Your task to perform on an android device: Open Reddit.com Image 0: 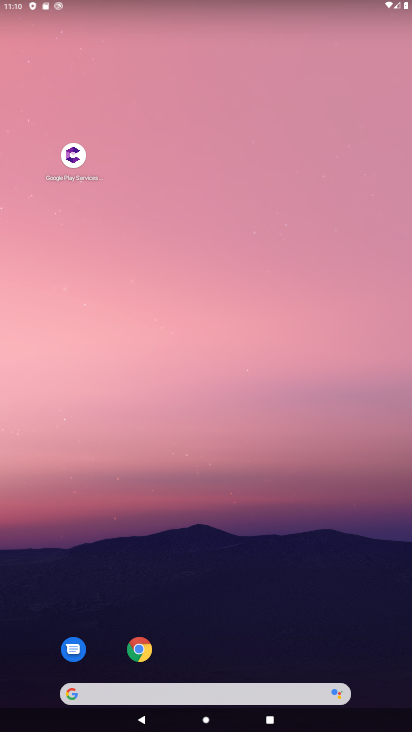
Step 0: click (317, 62)
Your task to perform on an android device: Open Reddit.com Image 1: 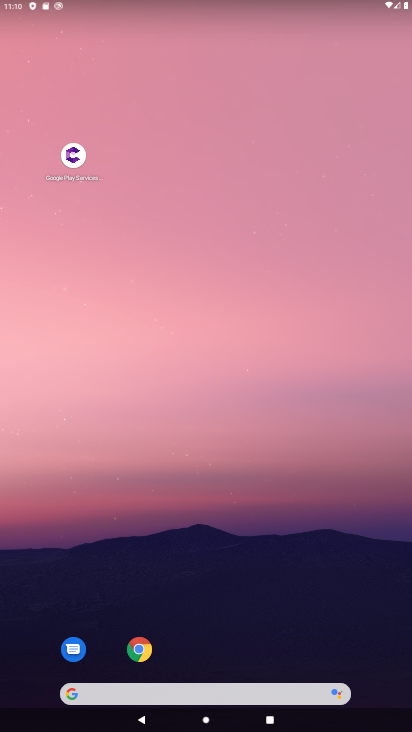
Step 1: drag from (299, 562) to (410, 187)
Your task to perform on an android device: Open Reddit.com Image 2: 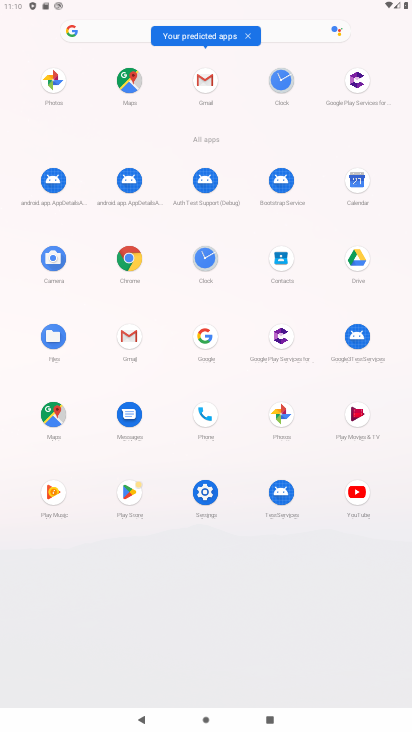
Step 2: click (131, 252)
Your task to perform on an android device: Open Reddit.com Image 3: 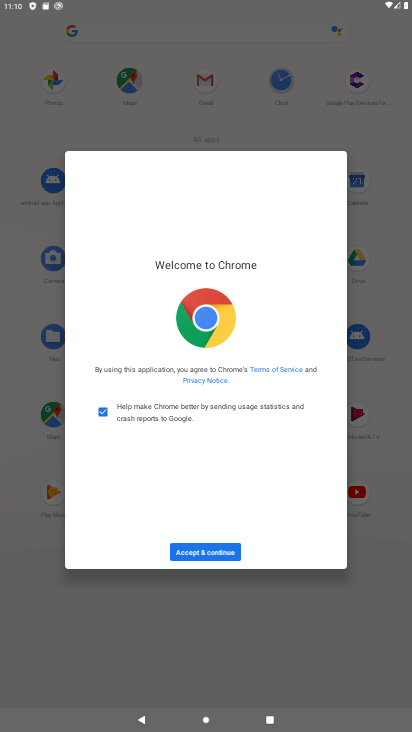
Step 3: click (220, 550)
Your task to perform on an android device: Open Reddit.com Image 4: 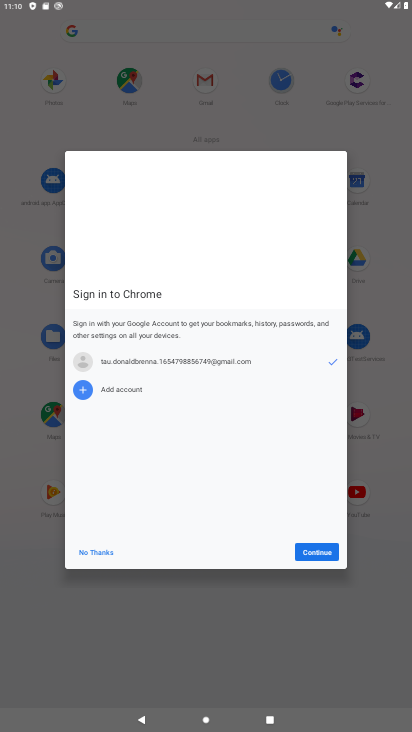
Step 4: click (97, 553)
Your task to perform on an android device: Open Reddit.com Image 5: 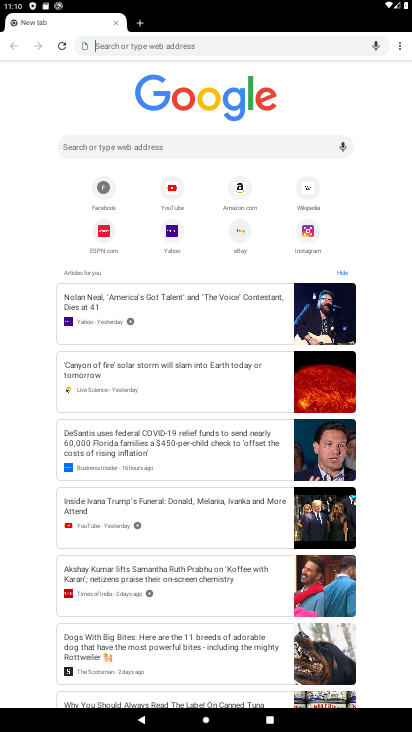
Step 5: type "reddit.com"
Your task to perform on an android device: Open Reddit.com Image 6: 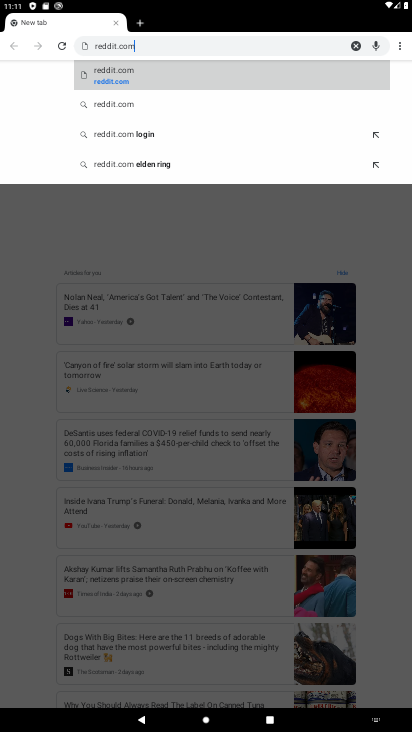
Step 6: click (123, 69)
Your task to perform on an android device: Open Reddit.com Image 7: 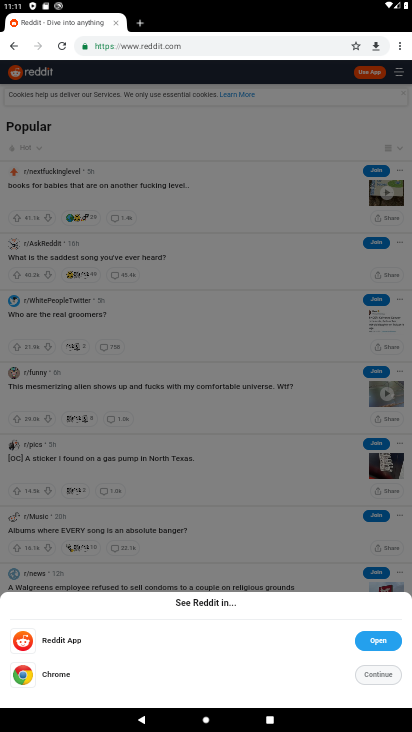
Step 7: click (391, 633)
Your task to perform on an android device: Open Reddit.com Image 8: 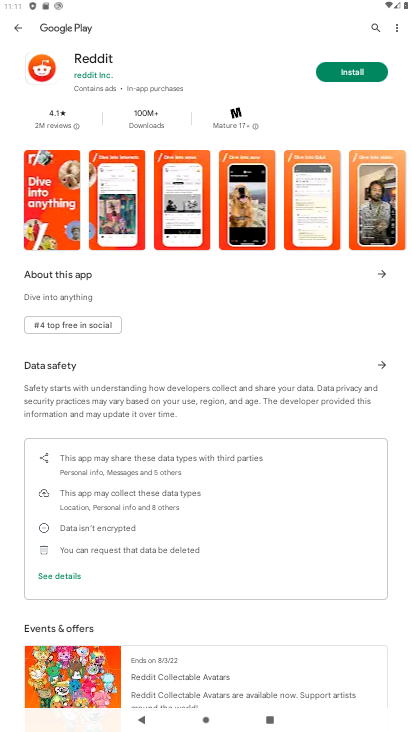
Step 8: task complete